Your task to perform on an android device: toggle javascript in the chrome app Image 0: 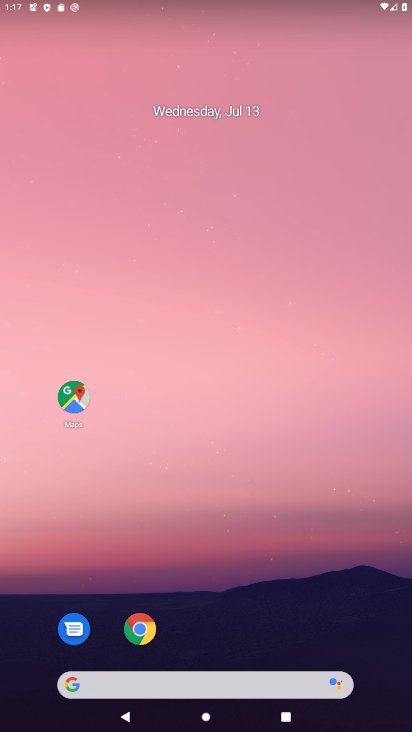
Step 0: drag from (194, 627) to (198, 106)
Your task to perform on an android device: toggle javascript in the chrome app Image 1: 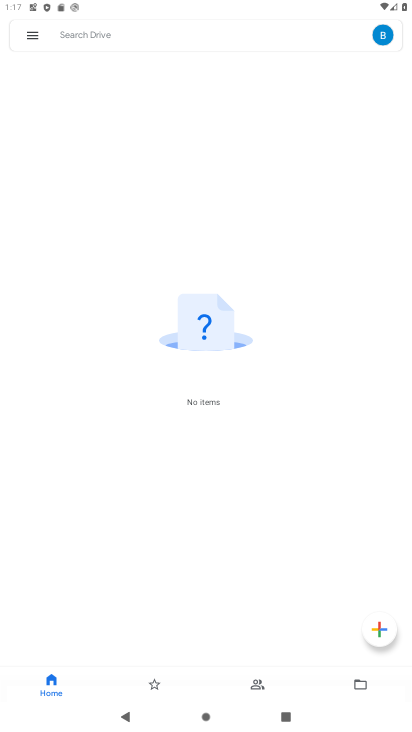
Step 1: press home button
Your task to perform on an android device: toggle javascript in the chrome app Image 2: 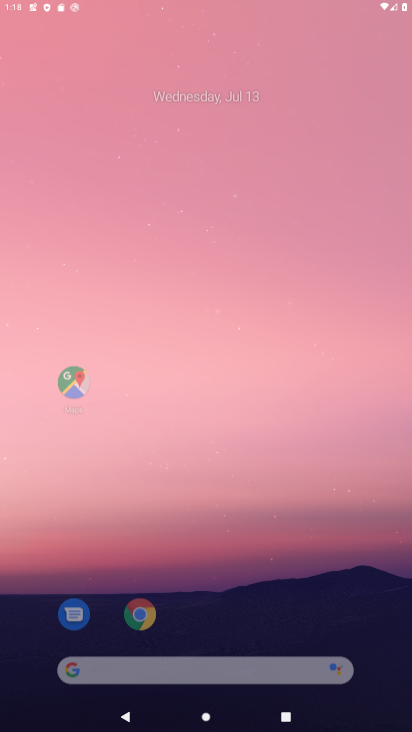
Step 2: drag from (227, 572) to (222, 103)
Your task to perform on an android device: toggle javascript in the chrome app Image 3: 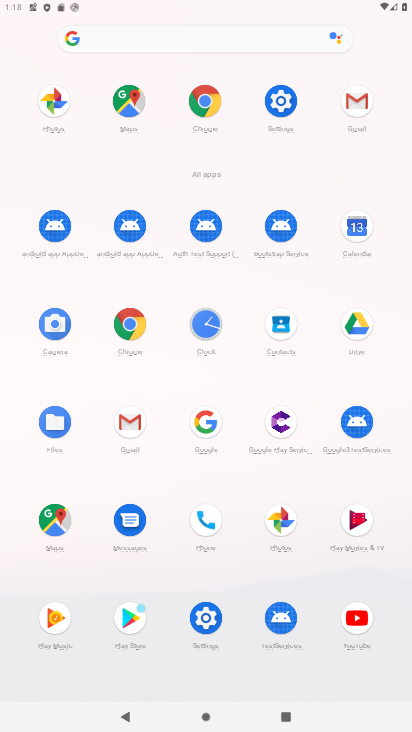
Step 3: click (130, 321)
Your task to perform on an android device: toggle javascript in the chrome app Image 4: 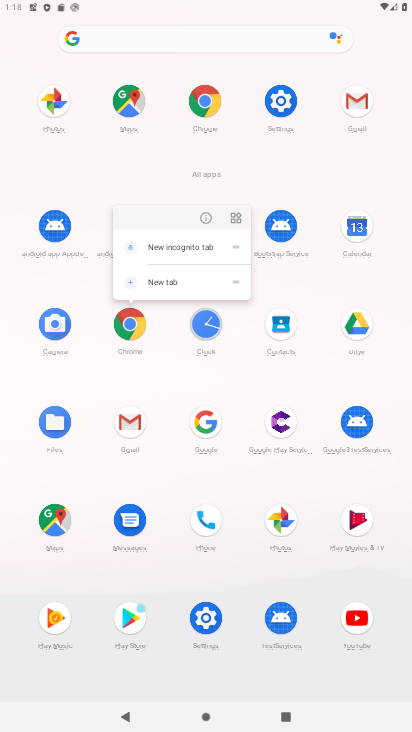
Step 4: click (200, 214)
Your task to perform on an android device: toggle javascript in the chrome app Image 5: 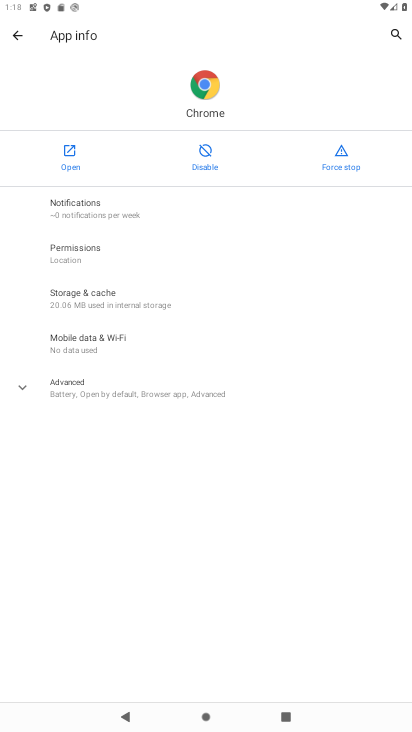
Step 5: click (67, 163)
Your task to perform on an android device: toggle javascript in the chrome app Image 6: 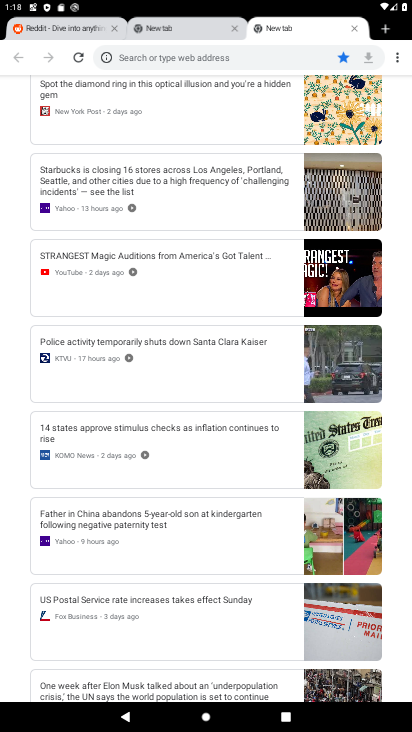
Step 6: drag from (162, 222) to (249, 721)
Your task to perform on an android device: toggle javascript in the chrome app Image 7: 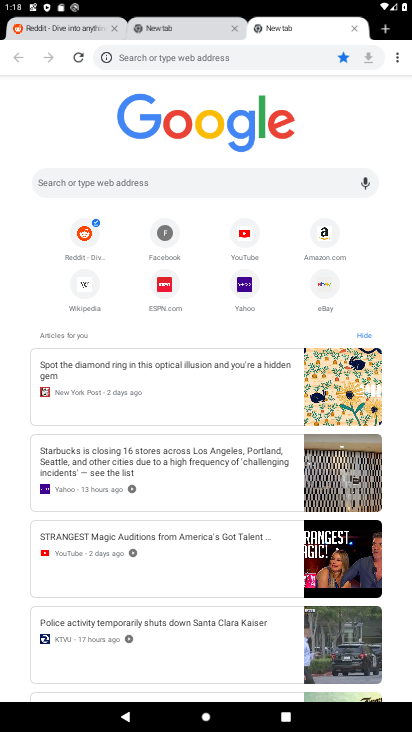
Step 7: click (404, 57)
Your task to perform on an android device: toggle javascript in the chrome app Image 8: 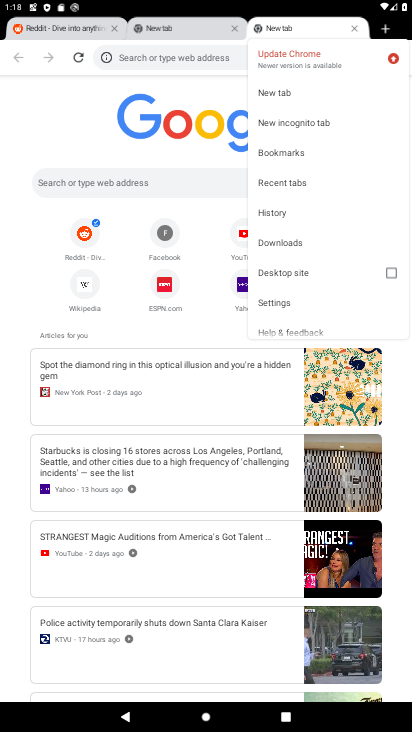
Step 8: click (275, 294)
Your task to perform on an android device: toggle javascript in the chrome app Image 9: 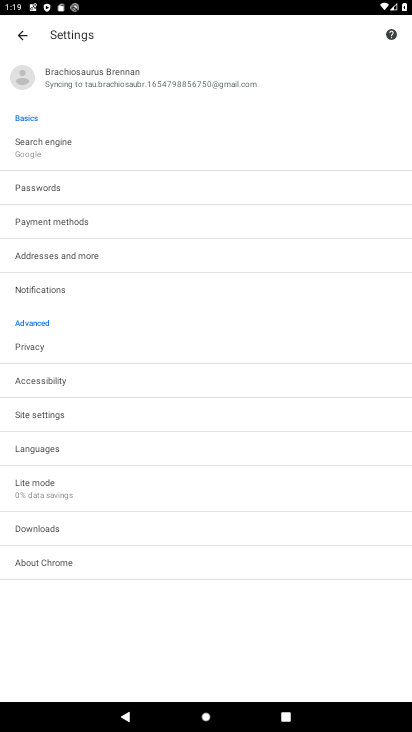
Step 9: click (56, 412)
Your task to perform on an android device: toggle javascript in the chrome app Image 10: 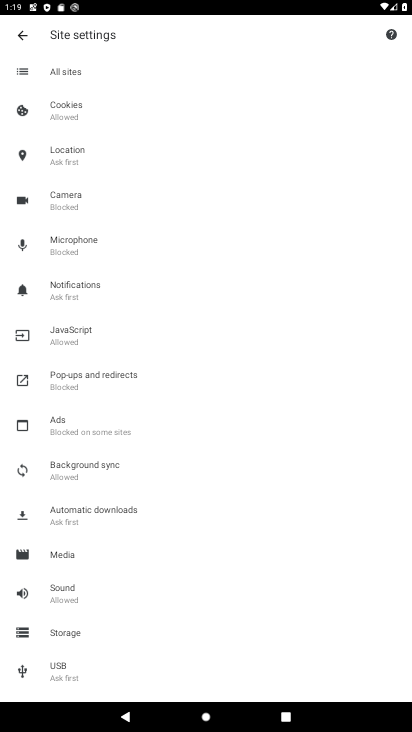
Step 10: drag from (182, 406) to (253, 156)
Your task to perform on an android device: toggle javascript in the chrome app Image 11: 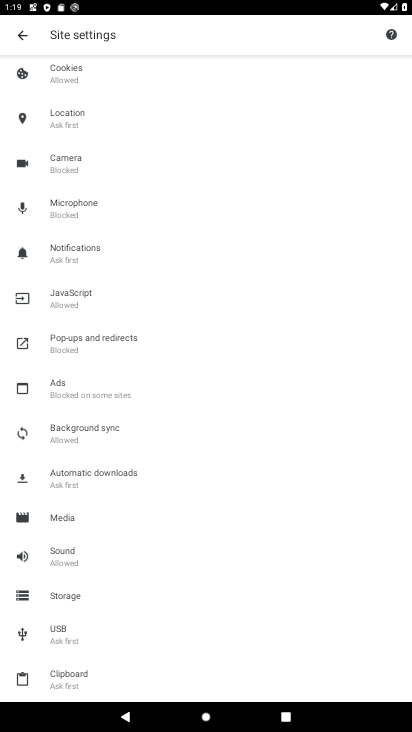
Step 11: click (79, 299)
Your task to perform on an android device: toggle javascript in the chrome app Image 12: 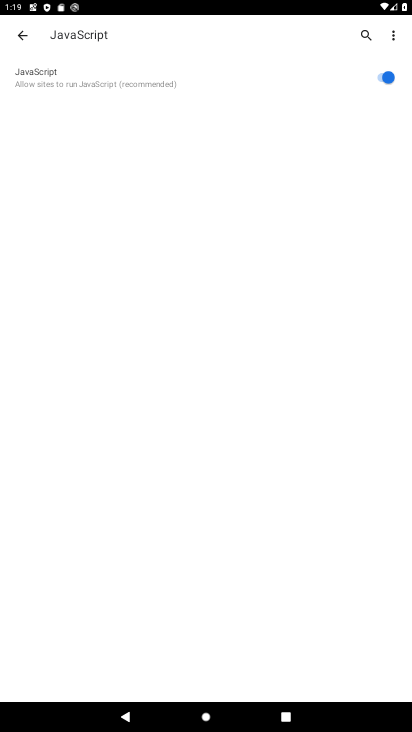
Step 12: task complete